Your task to perform on an android device: Open calendar and show me the third week of next month Image 0: 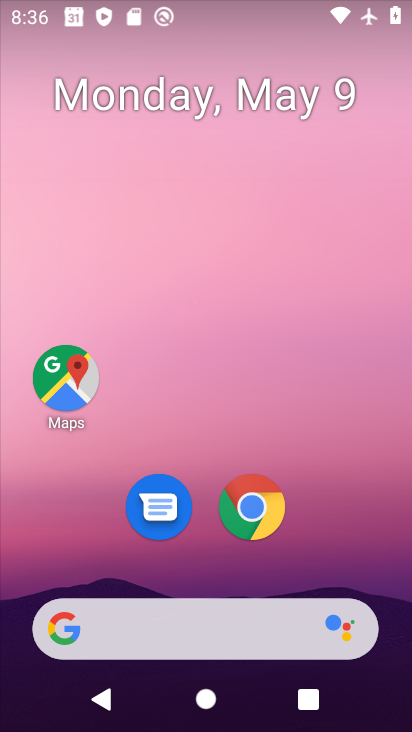
Step 0: drag from (210, 574) to (186, 16)
Your task to perform on an android device: Open calendar and show me the third week of next month Image 1: 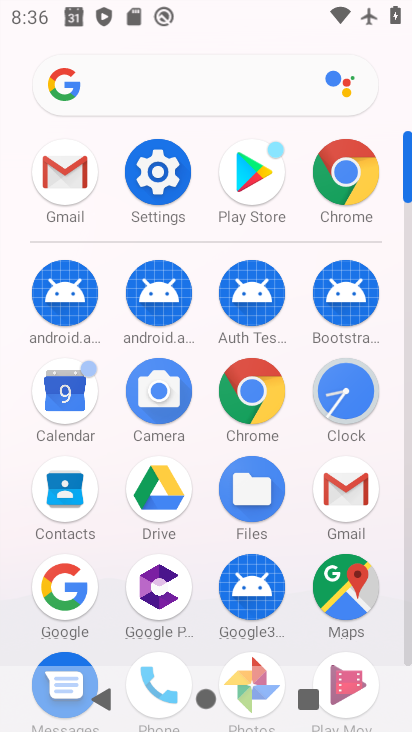
Step 1: click (98, 412)
Your task to perform on an android device: Open calendar and show me the third week of next month Image 2: 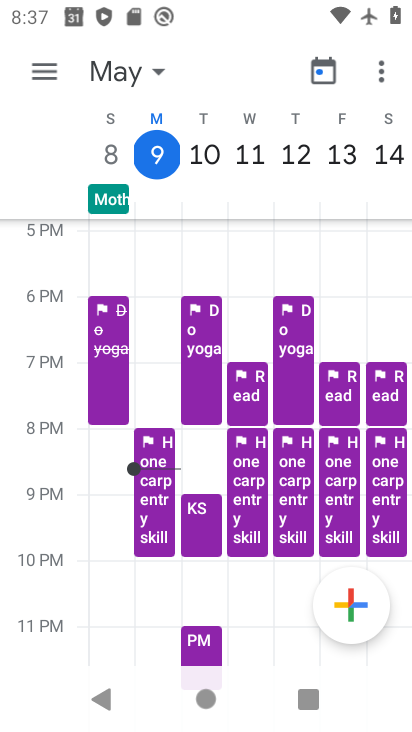
Step 2: task complete